Your task to perform on an android device: turn off priority inbox in the gmail app Image 0: 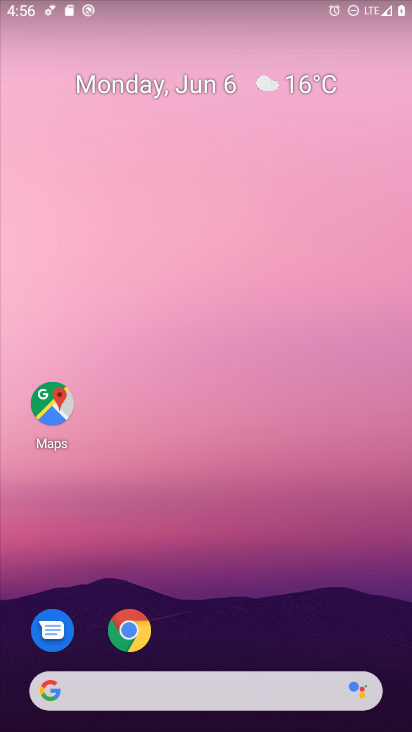
Step 0: drag from (288, 606) to (204, 57)
Your task to perform on an android device: turn off priority inbox in the gmail app Image 1: 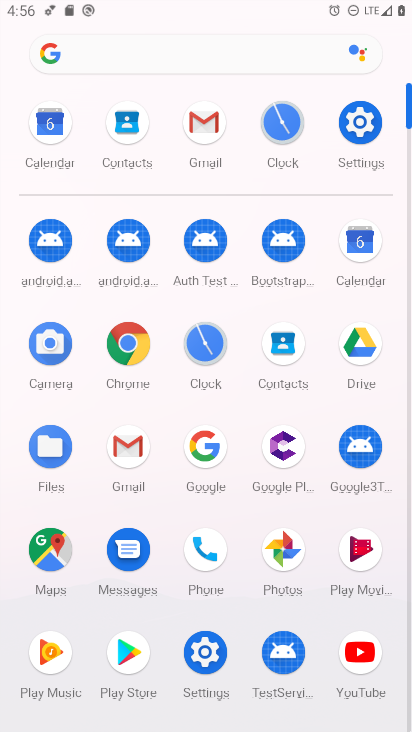
Step 1: click (121, 462)
Your task to perform on an android device: turn off priority inbox in the gmail app Image 2: 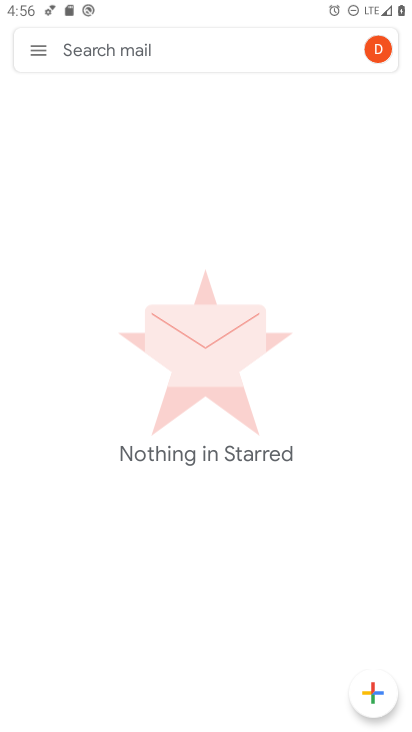
Step 2: click (42, 52)
Your task to perform on an android device: turn off priority inbox in the gmail app Image 3: 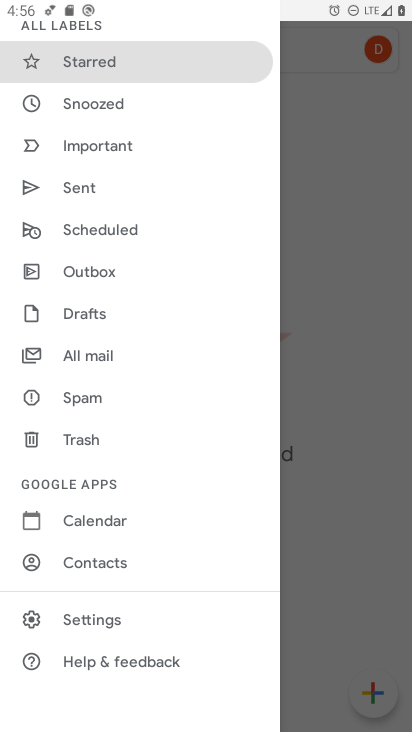
Step 3: click (115, 624)
Your task to perform on an android device: turn off priority inbox in the gmail app Image 4: 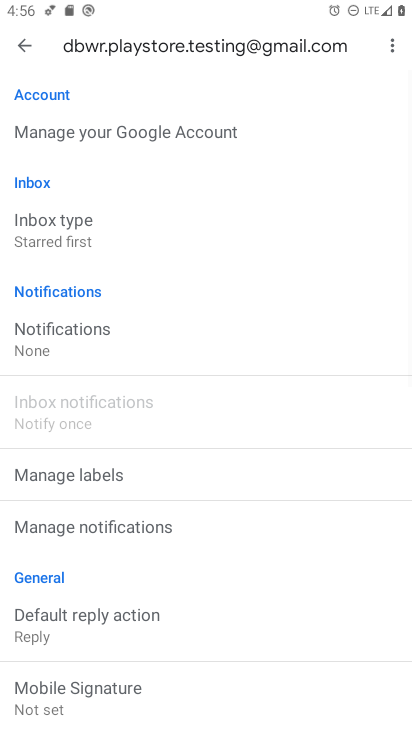
Step 4: click (127, 228)
Your task to perform on an android device: turn off priority inbox in the gmail app Image 5: 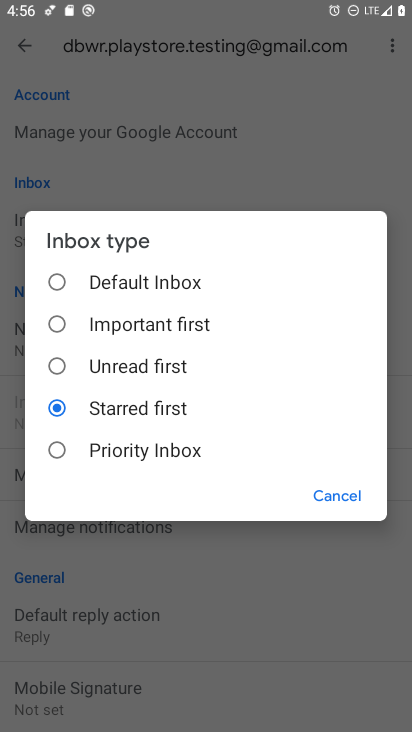
Step 5: task complete